Your task to perform on an android device: Play the new Beyonce video on YouTube Image 0: 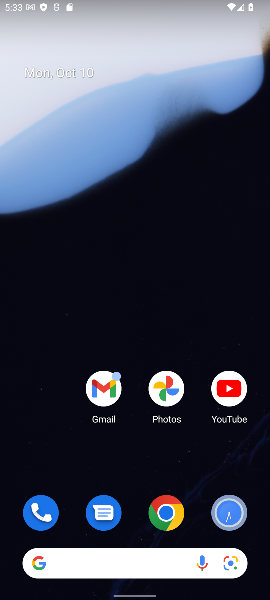
Step 0: click (219, 411)
Your task to perform on an android device: Play the new Beyonce video on YouTube Image 1: 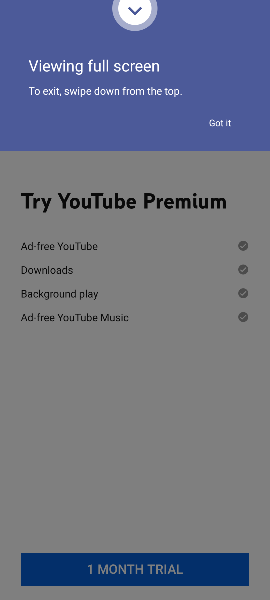
Step 1: task complete